Your task to perform on an android device: turn off location history Image 0: 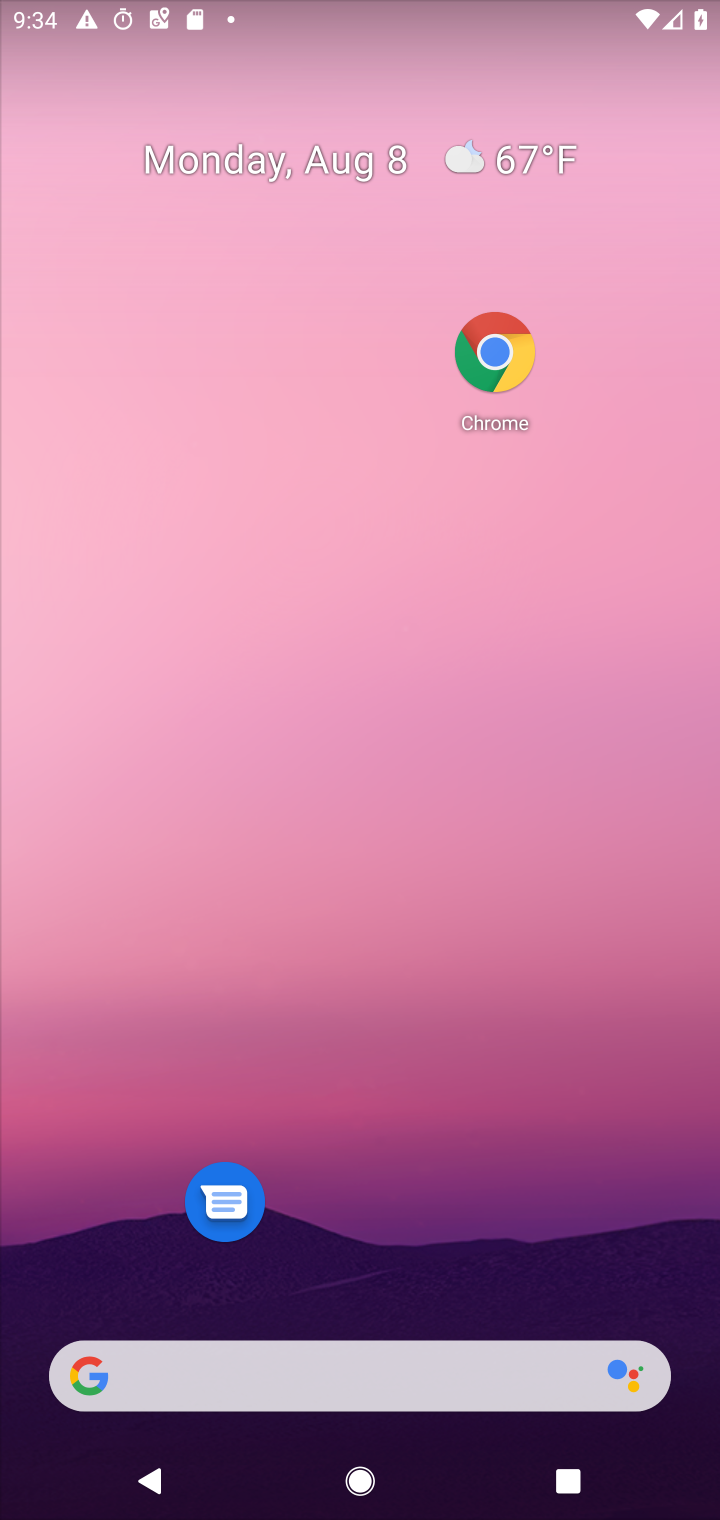
Step 0: drag from (344, 1257) to (218, 142)
Your task to perform on an android device: turn off location history Image 1: 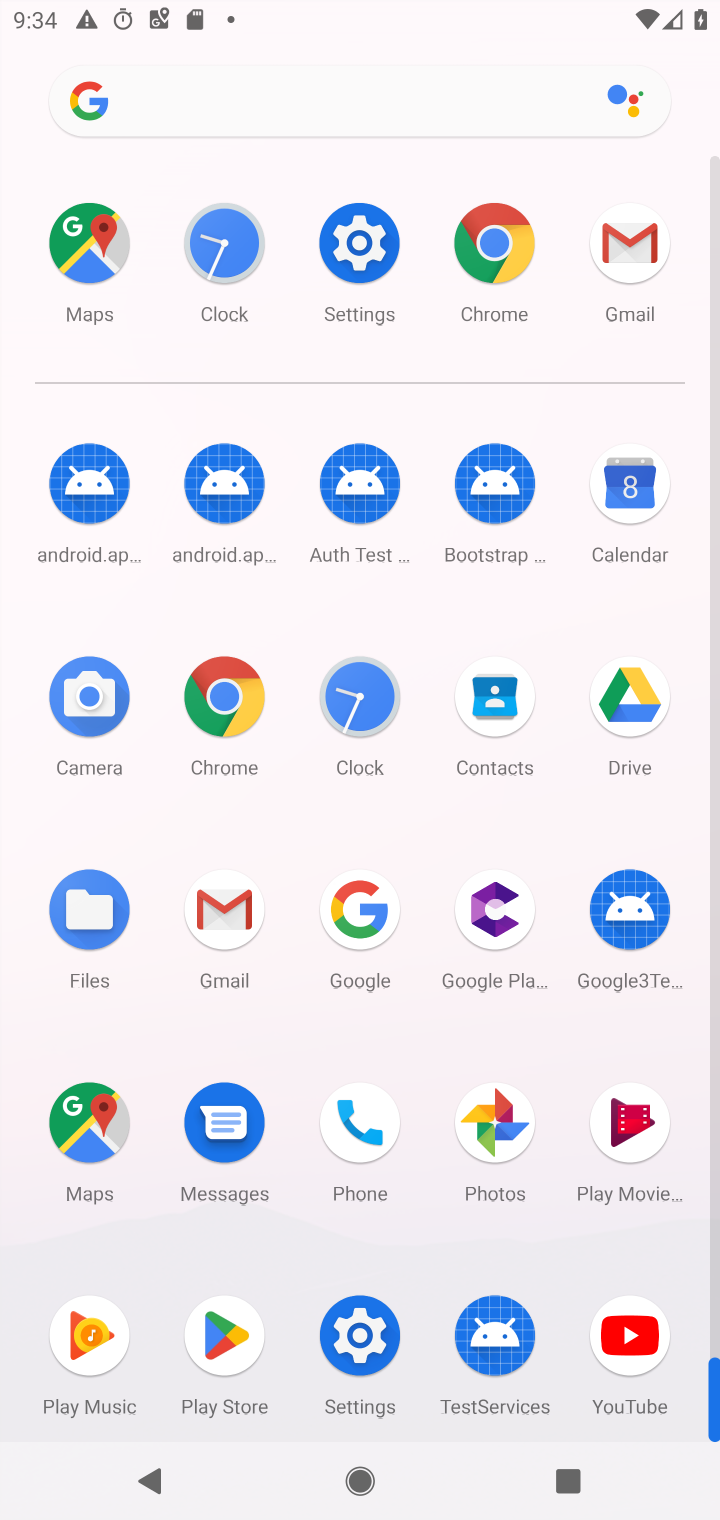
Step 1: click (362, 253)
Your task to perform on an android device: turn off location history Image 2: 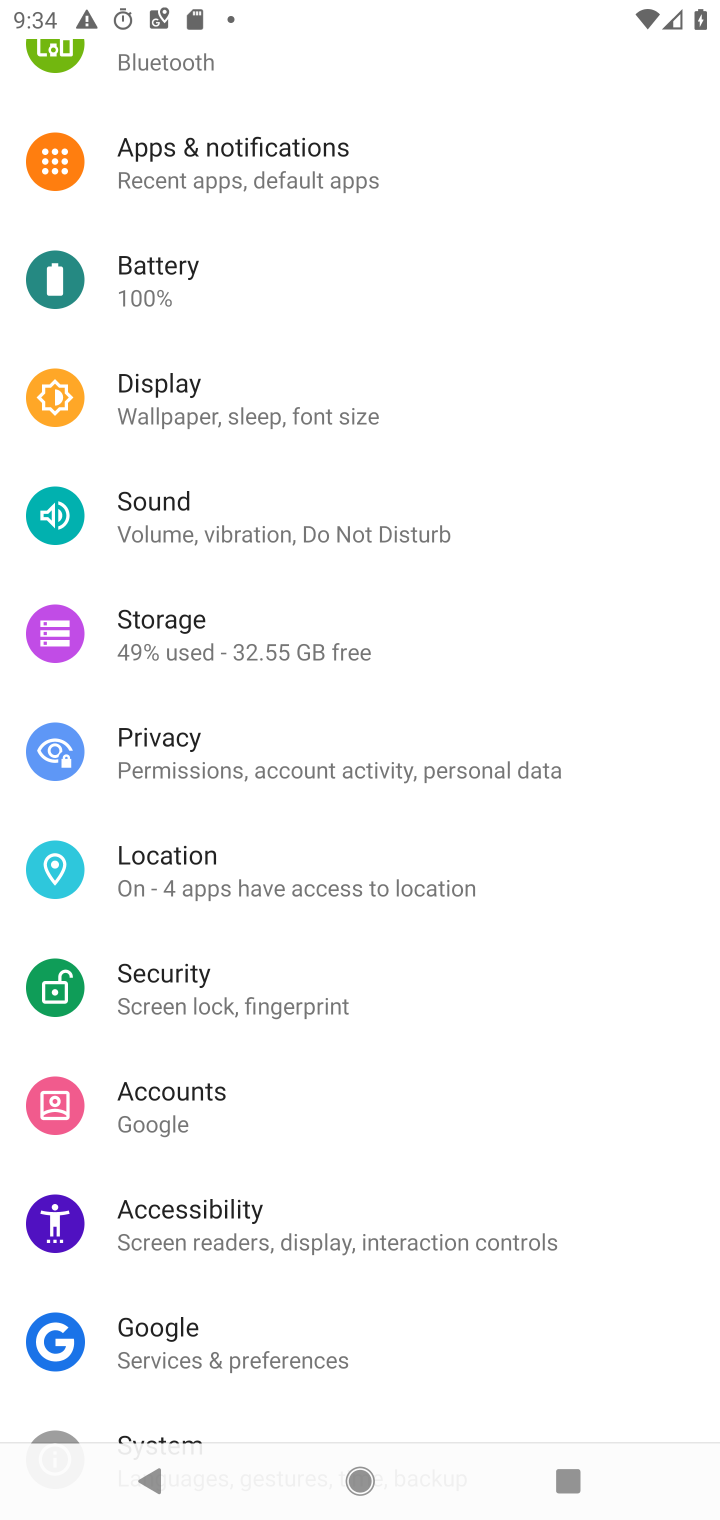
Step 2: click (261, 882)
Your task to perform on an android device: turn off location history Image 3: 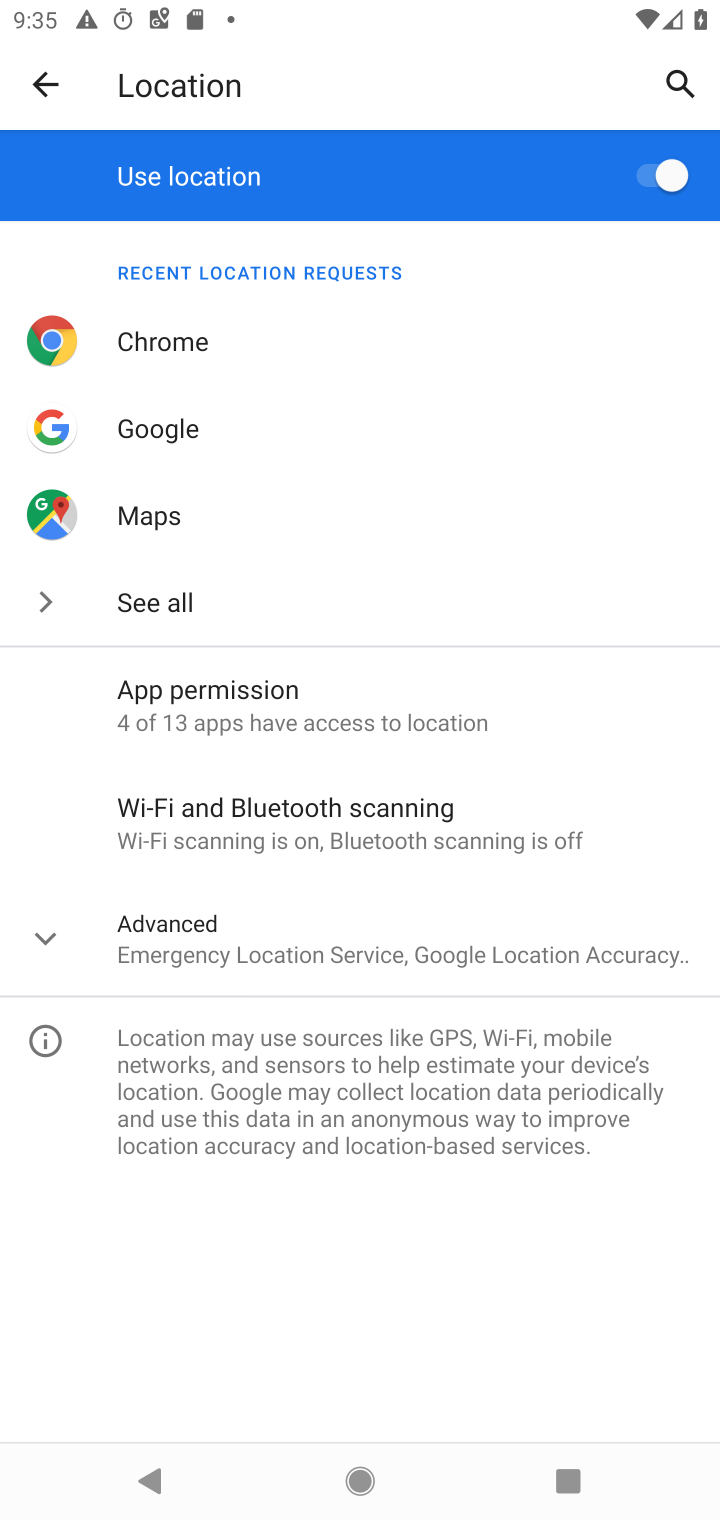
Step 3: click (403, 966)
Your task to perform on an android device: turn off location history Image 4: 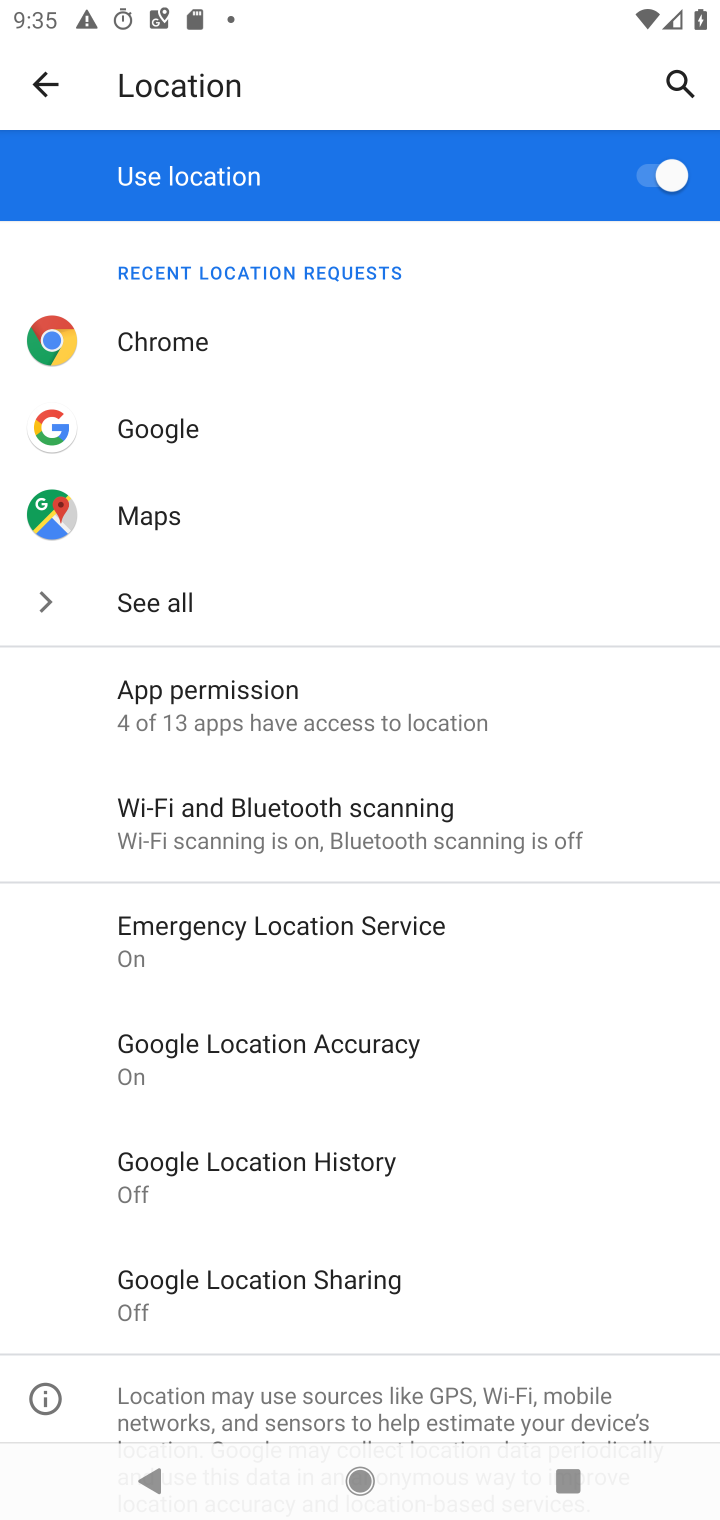
Step 4: click (363, 1178)
Your task to perform on an android device: turn off location history Image 5: 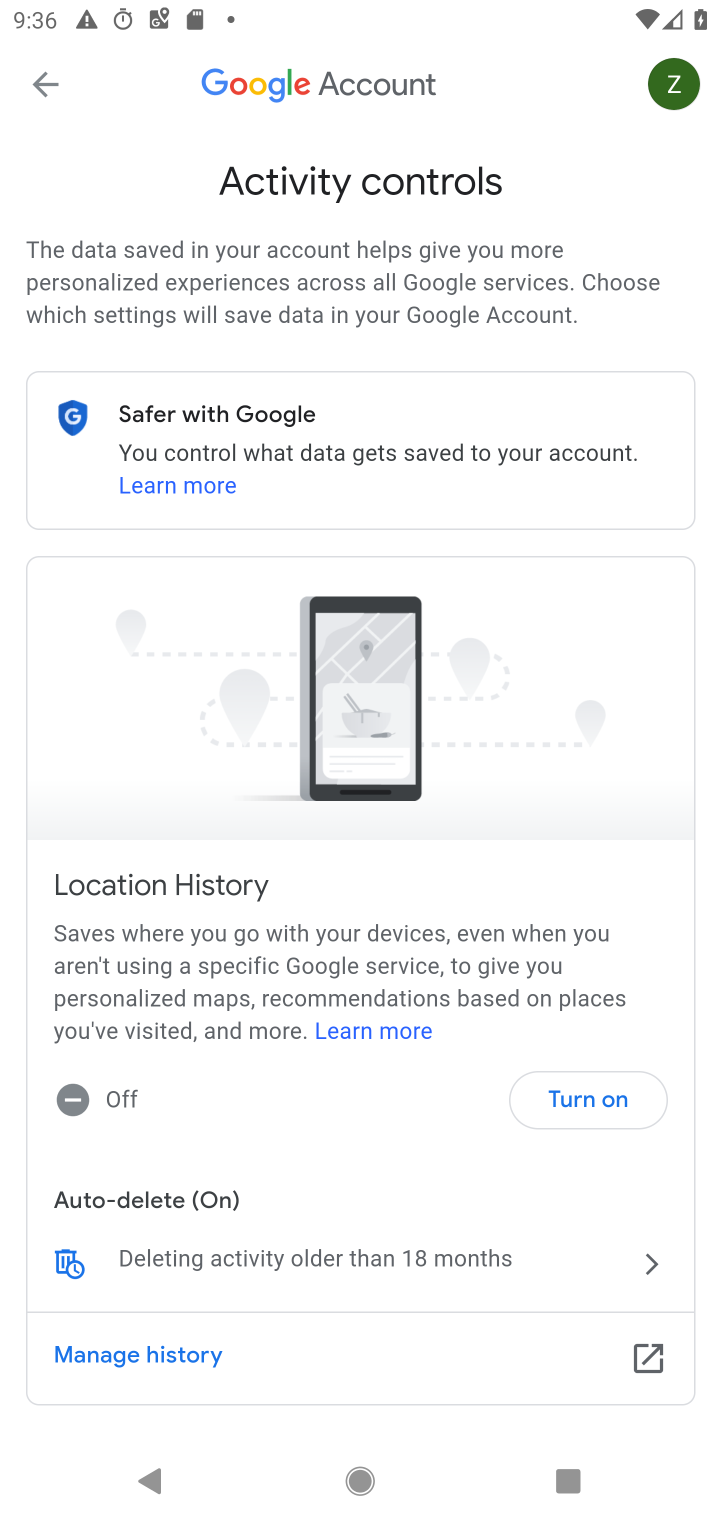
Step 5: task complete